Your task to perform on an android device: Go to eBay Image 0: 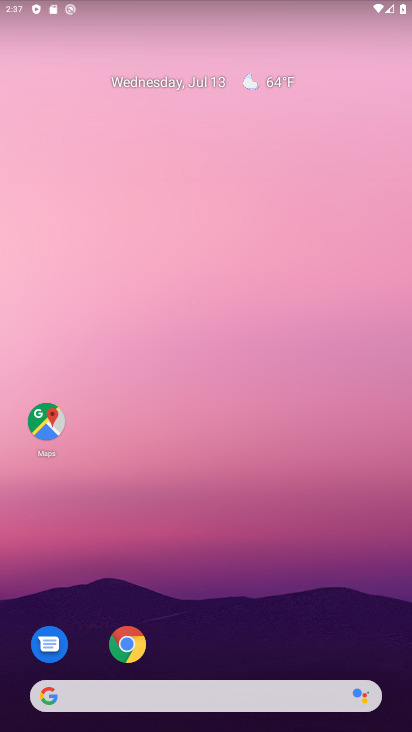
Step 0: press home button
Your task to perform on an android device: Go to eBay Image 1: 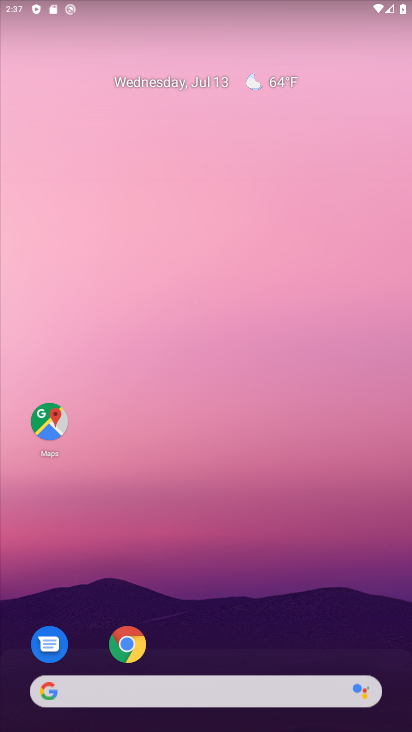
Step 1: click (126, 642)
Your task to perform on an android device: Go to eBay Image 2: 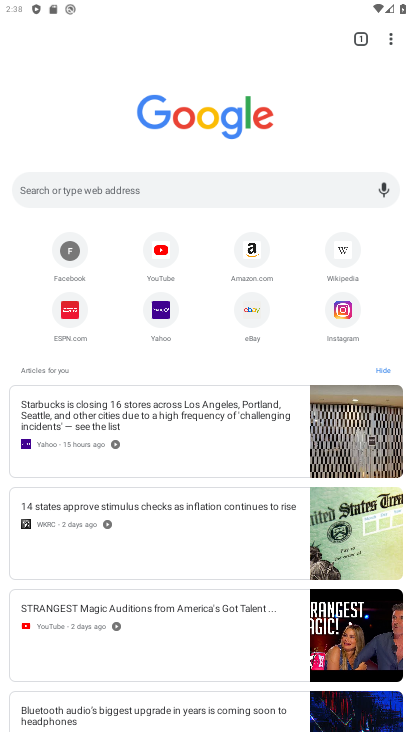
Step 2: click (249, 308)
Your task to perform on an android device: Go to eBay Image 3: 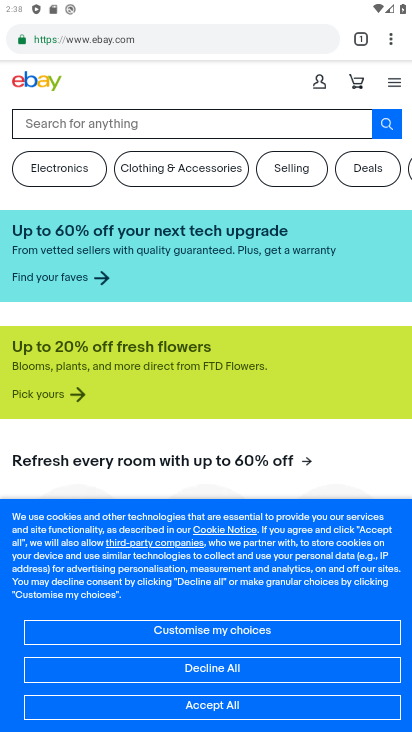
Step 3: click (230, 708)
Your task to perform on an android device: Go to eBay Image 4: 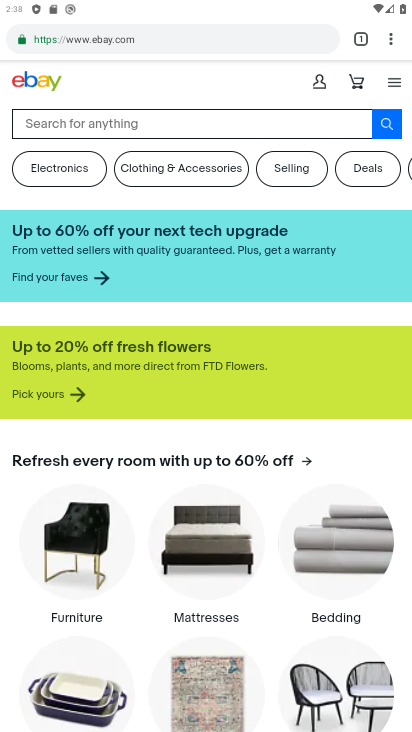
Step 4: task complete